Your task to perform on an android device: Go to privacy settings Image 0: 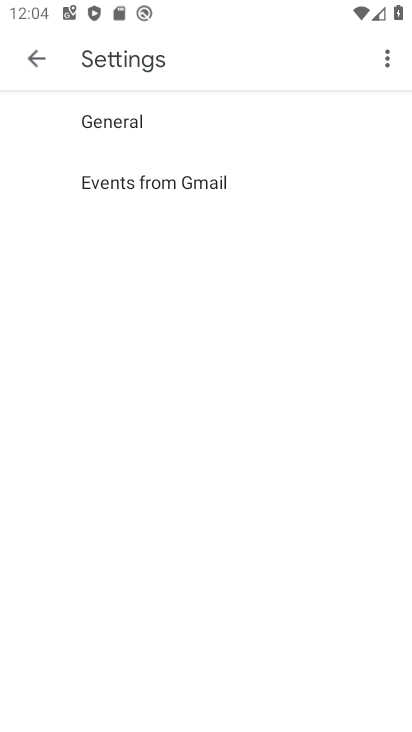
Step 0: press home button
Your task to perform on an android device: Go to privacy settings Image 1: 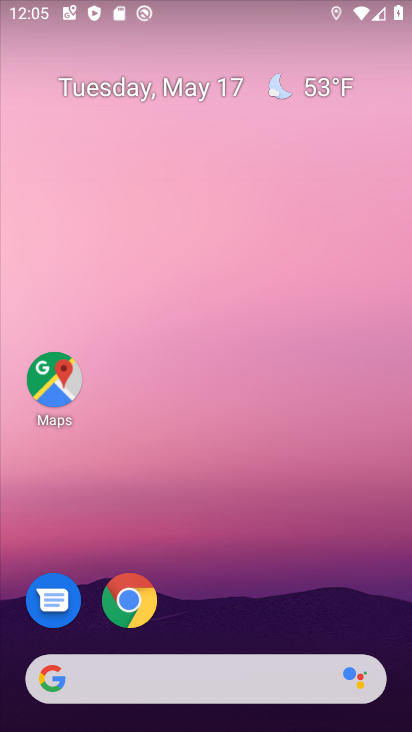
Step 1: drag from (234, 610) to (334, 140)
Your task to perform on an android device: Go to privacy settings Image 2: 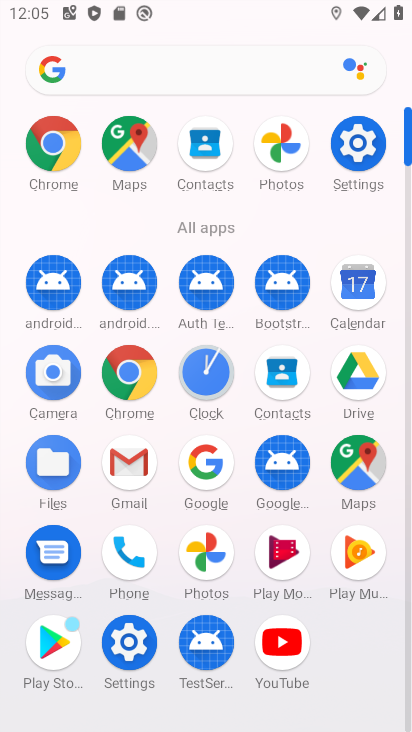
Step 2: click (352, 162)
Your task to perform on an android device: Go to privacy settings Image 3: 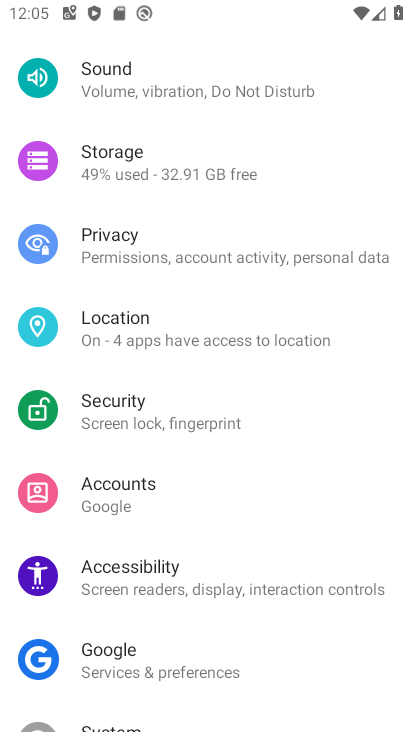
Step 3: click (191, 254)
Your task to perform on an android device: Go to privacy settings Image 4: 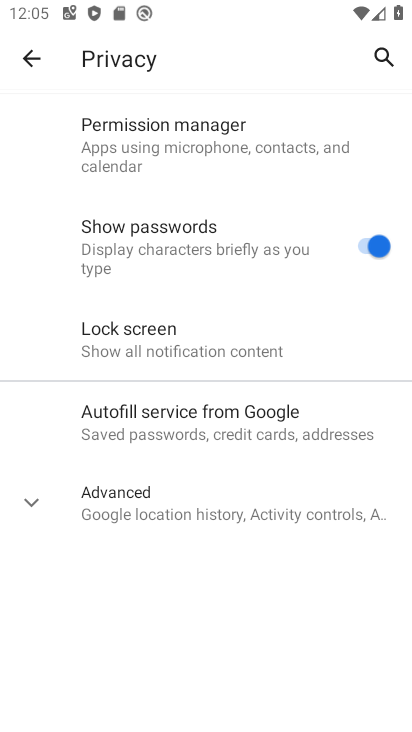
Step 4: task complete